Your task to perform on an android device: Go to wifi settings Image 0: 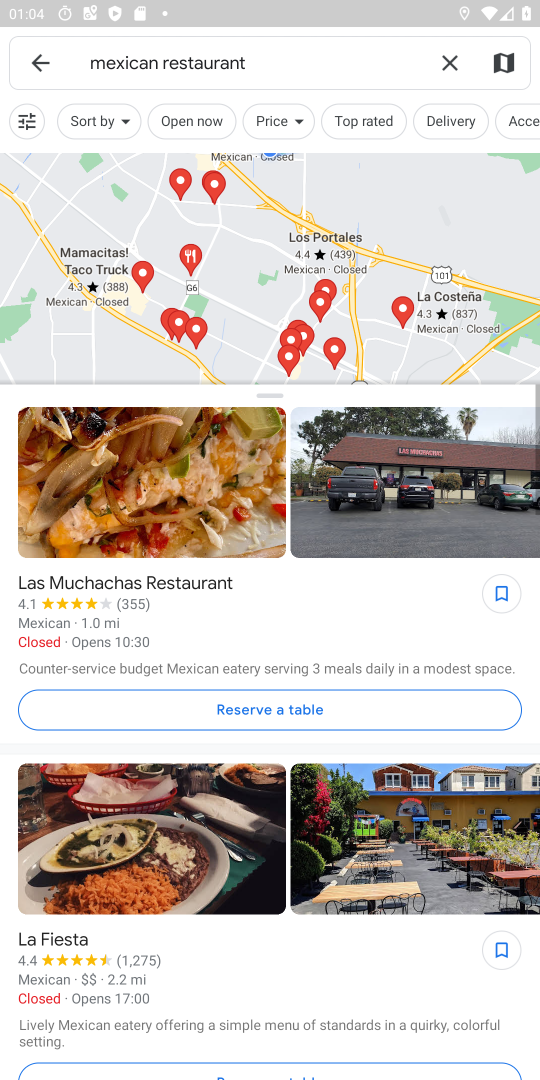
Step 0: press home button
Your task to perform on an android device: Go to wifi settings Image 1: 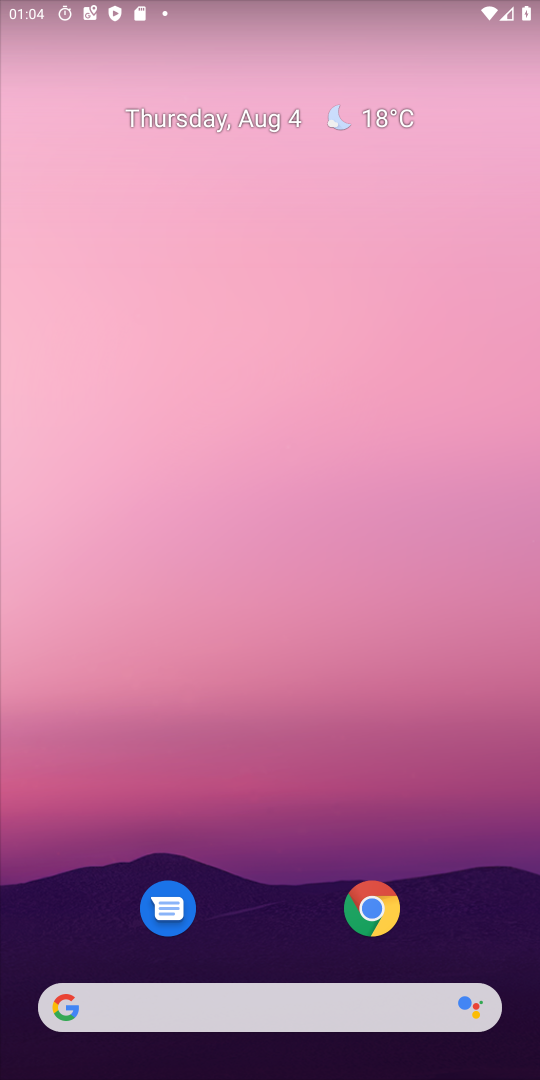
Step 1: drag from (309, 1037) to (313, 767)
Your task to perform on an android device: Go to wifi settings Image 2: 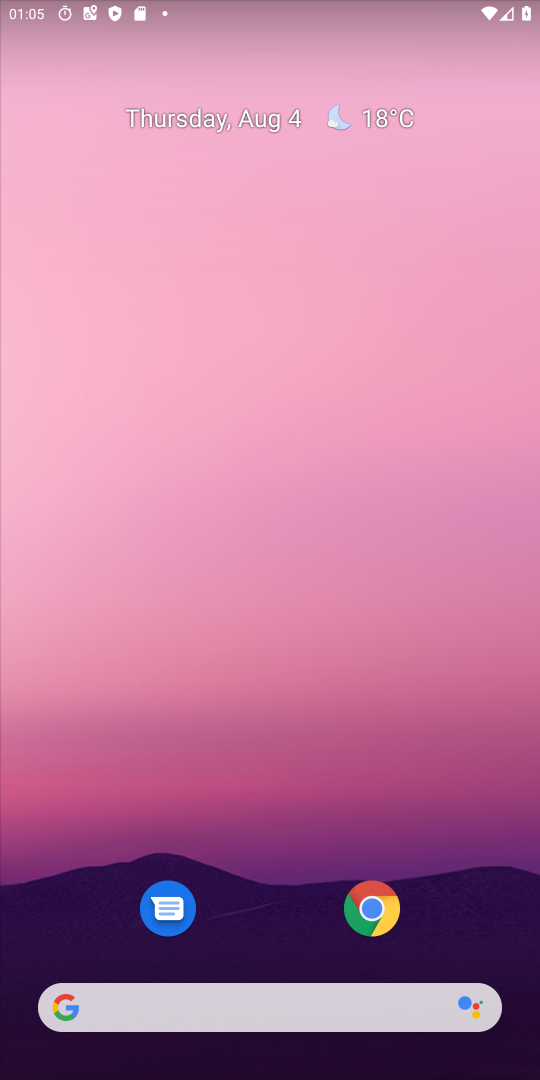
Step 2: drag from (337, 1003) to (258, 240)
Your task to perform on an android device: Go to wifi settings Image 3: 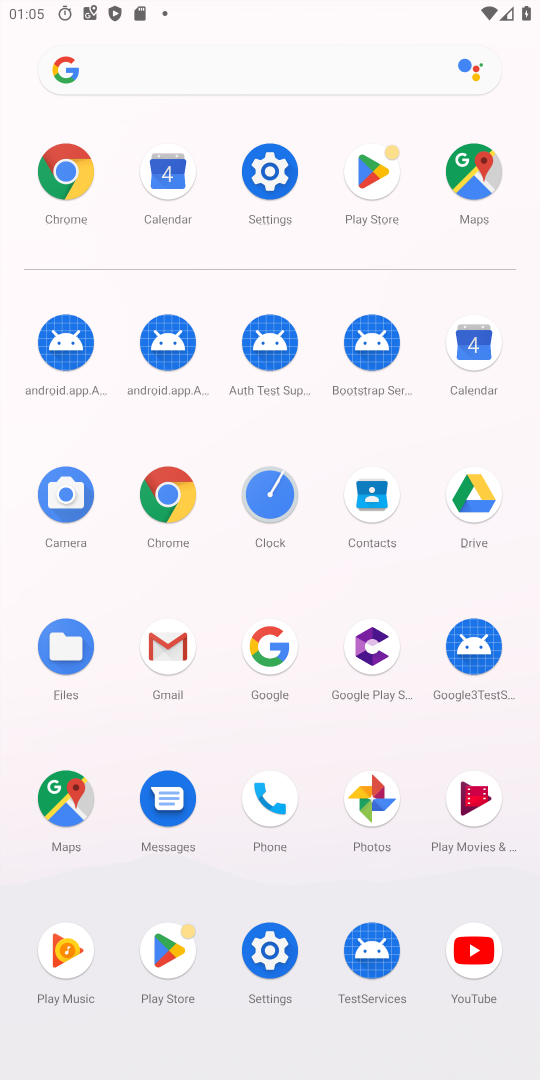
Step 3: click (258, 168)
Your task to perform on an android device: Go to wifi settings Image 4: 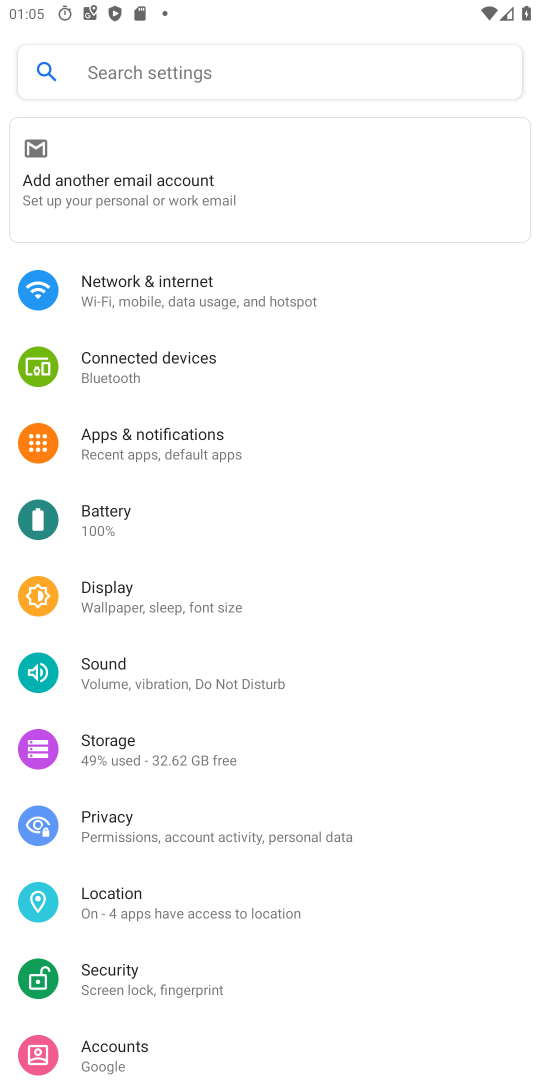
Step 4: click (159, 290)
Your task to perform on an android device: Go to wifi settings Image 5: 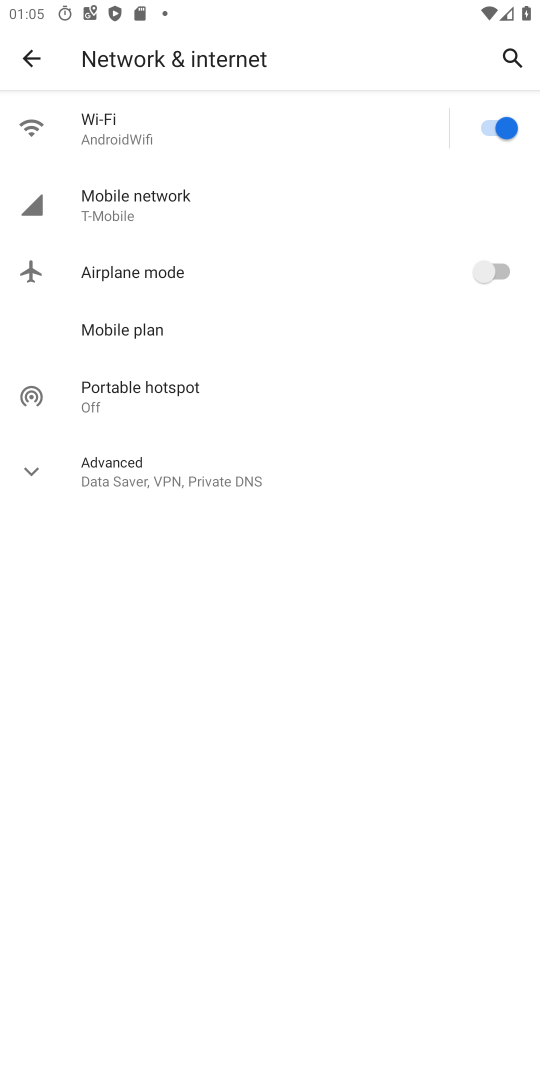
Step 5: click (162, 140)
Your task to perform on an android device: Go to wifi settings Image 6: 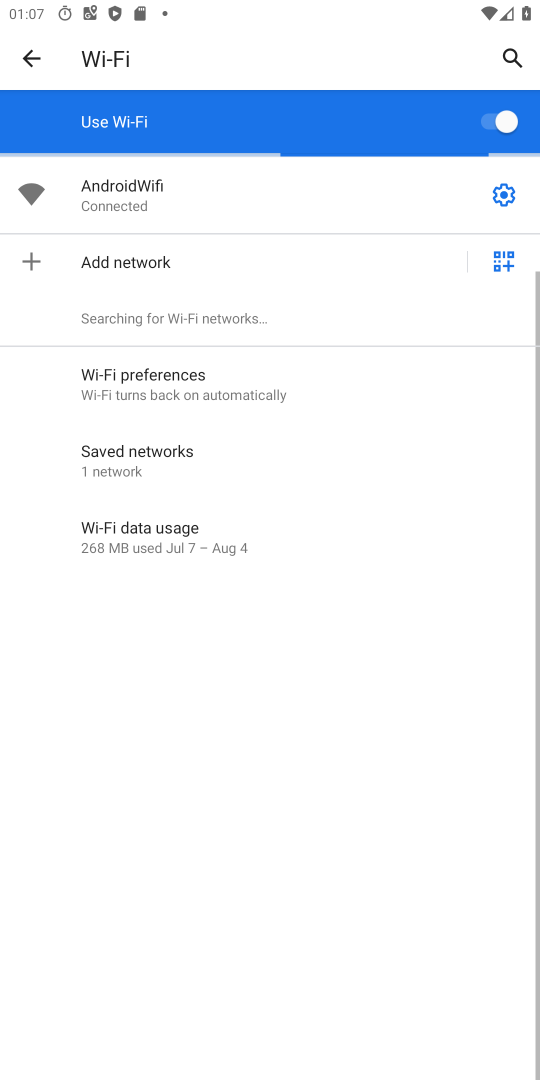
Step 6: task complete